Your task to perform on an android device: clear all cookies in the chrome app Image 0: 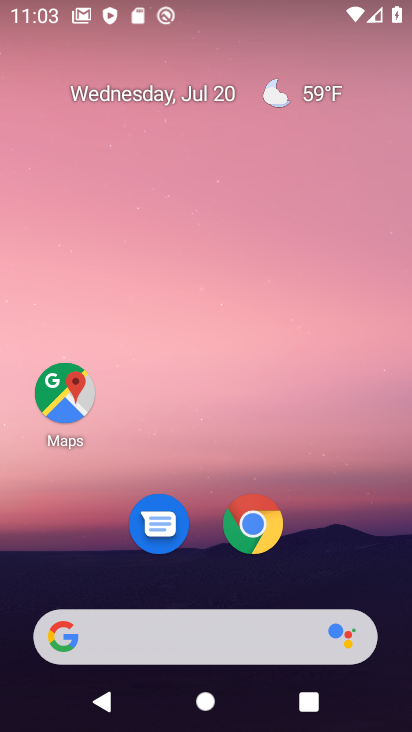
Step 0: click (254, 526)
Your task to perform on an android device: clear all cookies in the chrome app Image 1: 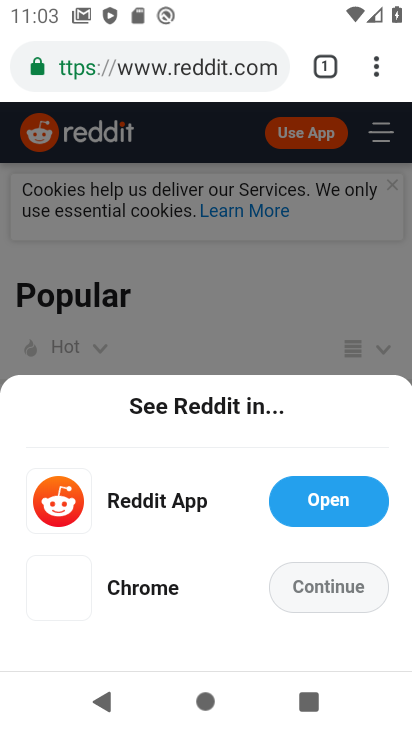
Step 1: drag from (376, 62) to (204, 524)
Your task to perform on an android device: clear all cookies in the chrome app Image 2: 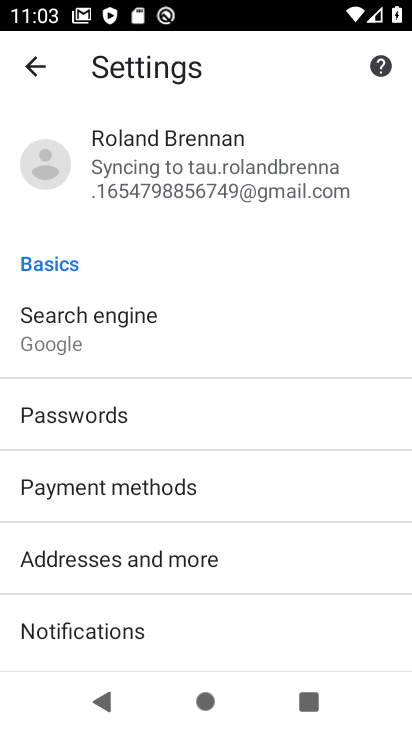
Step 2: drag from (203, 625) to (246, 233)
Your task to perform on an android device: clear all cookies in the chrome app Image 3: 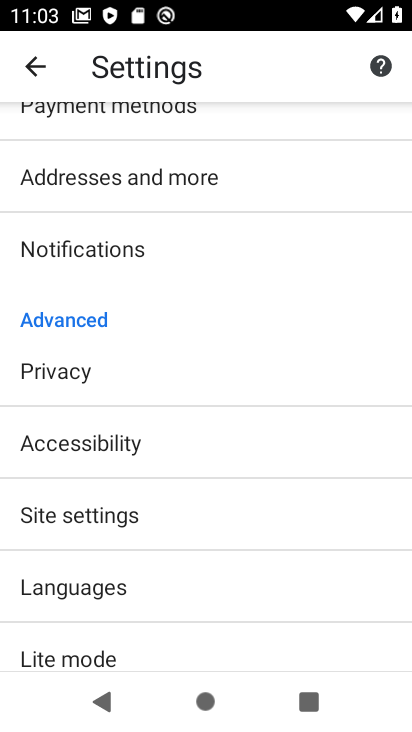
Step 3: click (125, 519)
Your task to perform on an android device: clear all cookies in the chrome app Image 4: 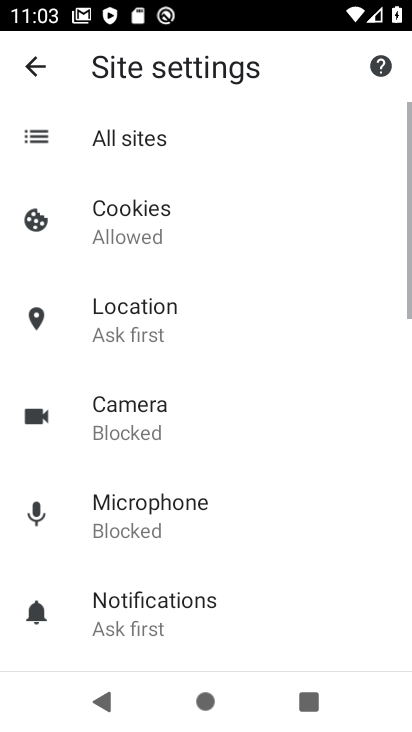
Step 4: click (38, 56)
Your task to perform on an android device: clear all cookies in the chrome app Image 5: 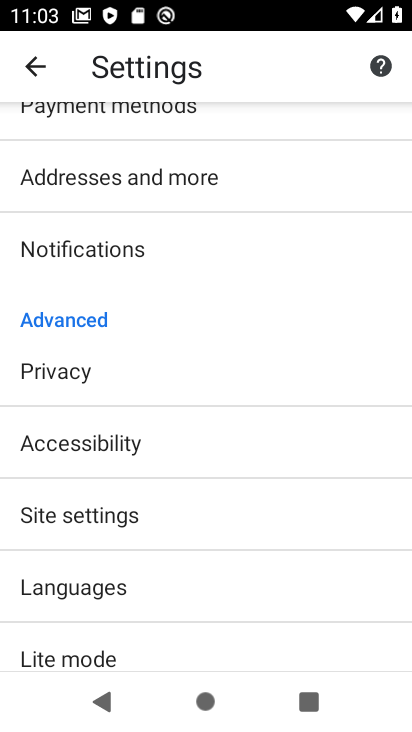
Step 5: click (69, 364)
Your task to perform on an android device: clear all cookies in the chrome app Image 6: 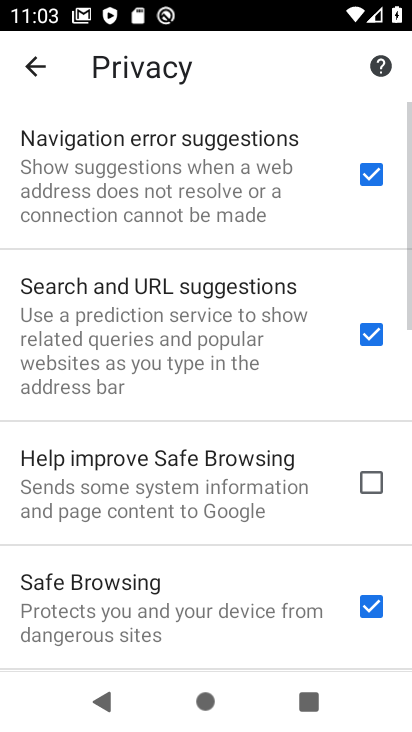
Step 6: drag from (195, 627) to (272, 37)
Your task to perform on an android device: clear all cookies in the chrome app Image 7: 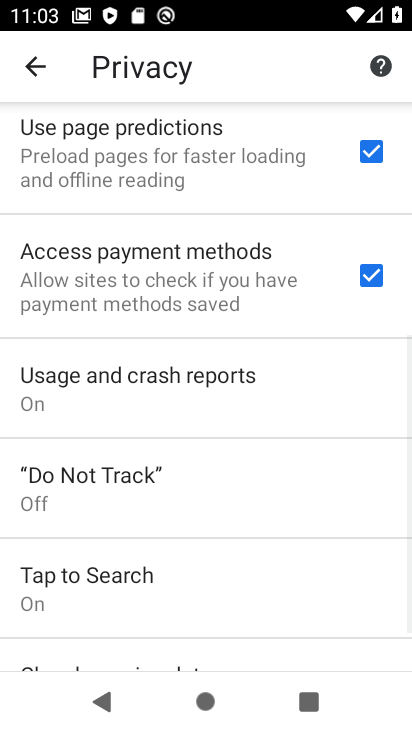
Step 7: drag from (247, 433) to (252, 20)
Your task to perform on an android device: clear all cookies in the chrome app Image 8: 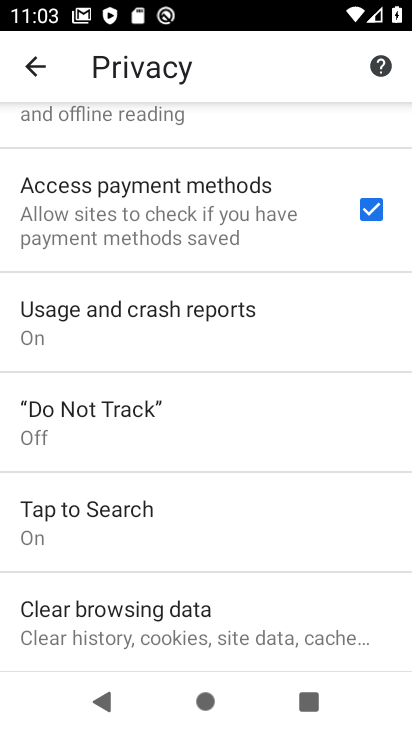
Step 8: click (171, 619)
Your task to perform on an android device: clear all cookies in the chrome app Image 9: 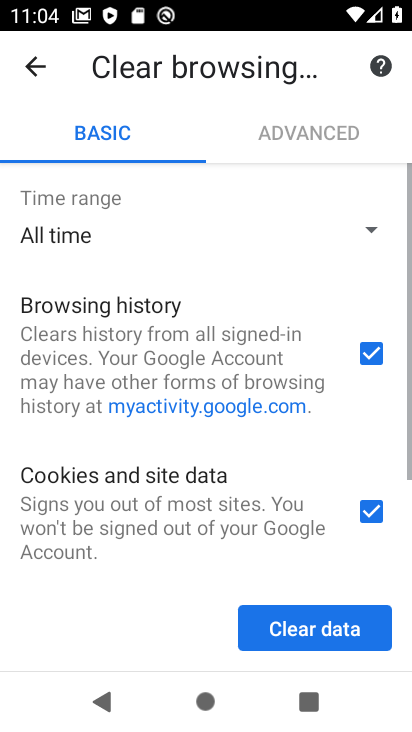
Step 9: click (378, 349)
Your task to perform on an android device: clear all cookies in the chrome app Image 10: 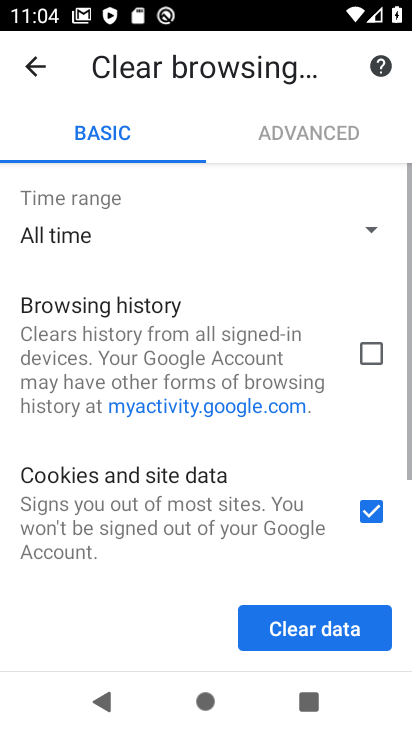
Step 10: drag from (220, 463) to (279, 144)
Your task to perform on an android device: clear all cookies in the chrome app Image 11: 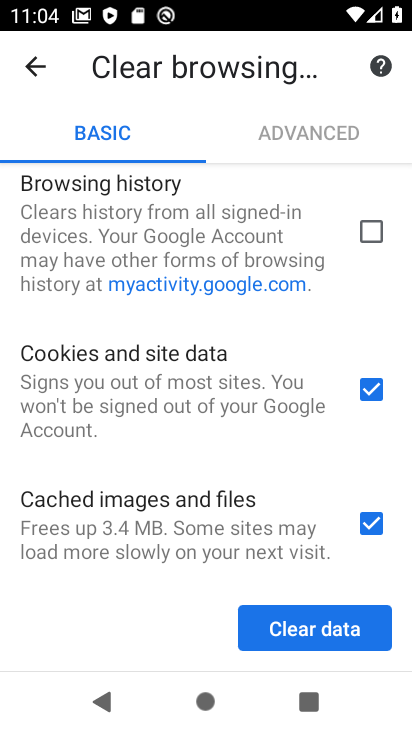
Step 11: click (378, 514)
Your task to perform on an android device: clear all cookies in the chrome app Image 12: 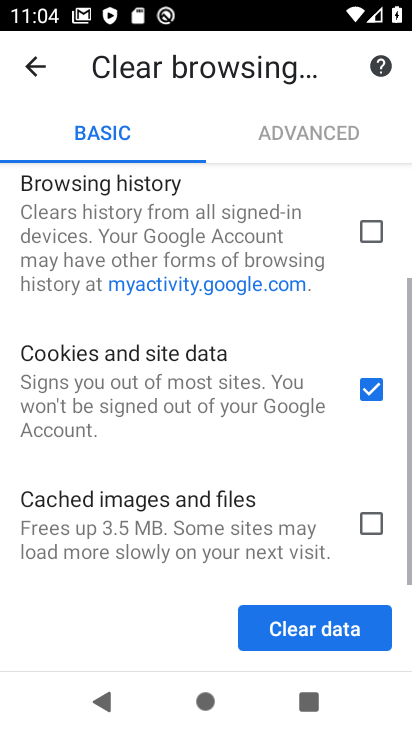
Step 12: click (336, 630)
Your task to perform on an android device: clear all cookies in the chrome app Image 13: 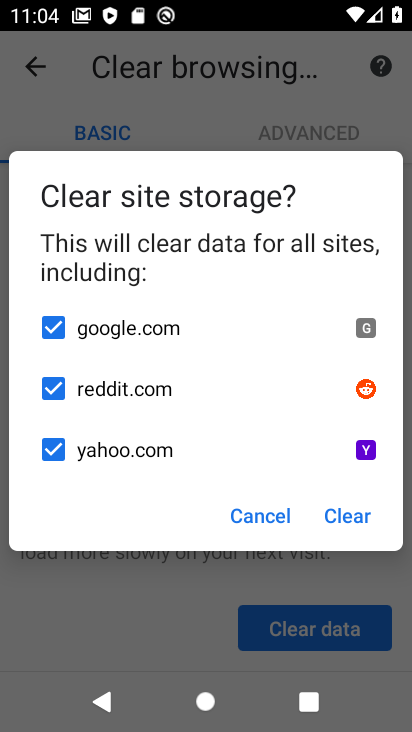
Step 13: click (346, 507)
Your task to perform on an android device: clear all cookies in the chrome app Image 14: 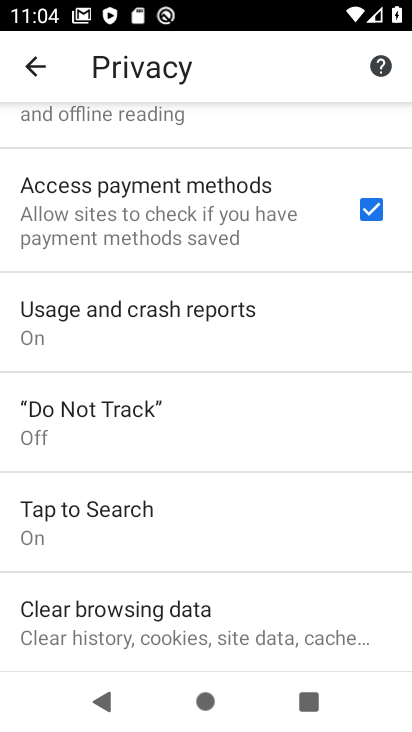
Step 14: task complete